Your task to perform on an android device: Open ESPN.com Image 0: 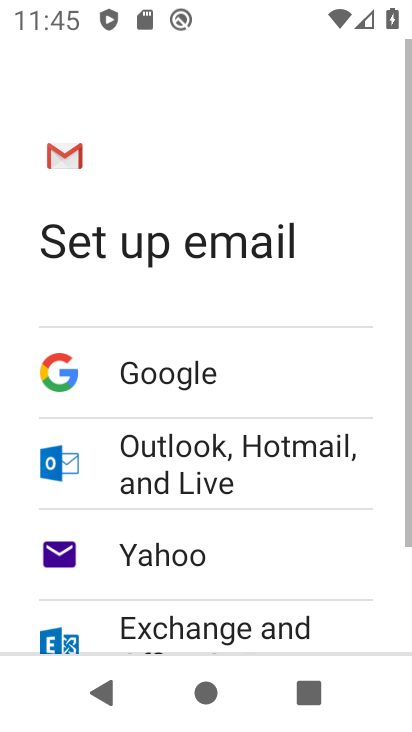
Step 0: press home button
Your task to perform on an android device: Open ESPN.com Image 1: 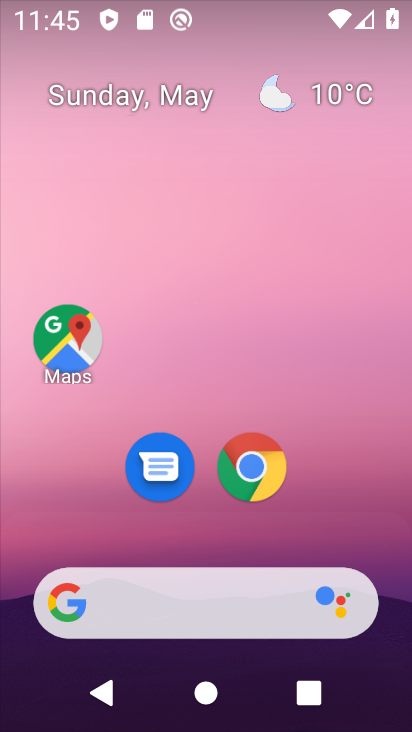
Step 1: drag from (388, 526) to (335, 196)
Your task to perform on an android device: Open ESPN.com Image 2: 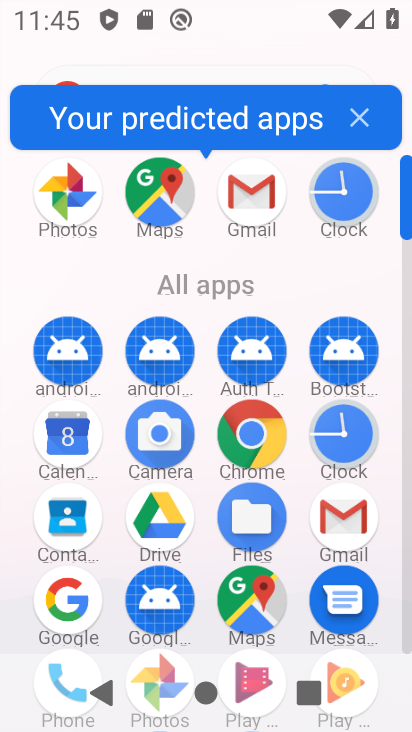
Step 2: click (266, 435)
Your task to perform on an android device: Open ESPN.com Image 3: 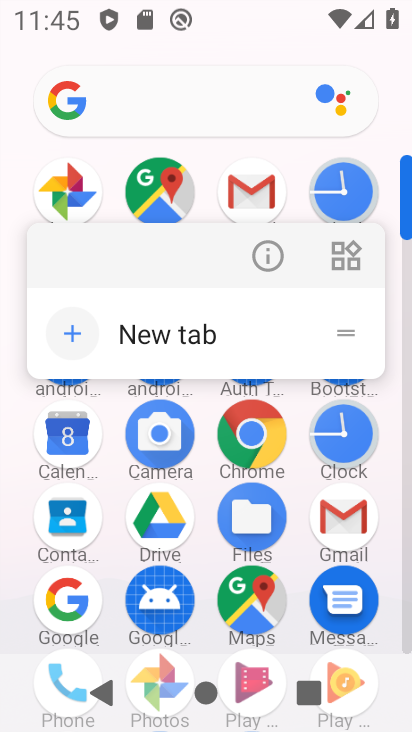
Step 3: click (258, 437)
Your task to perform on an android device: Open ESPN.com Image 4: 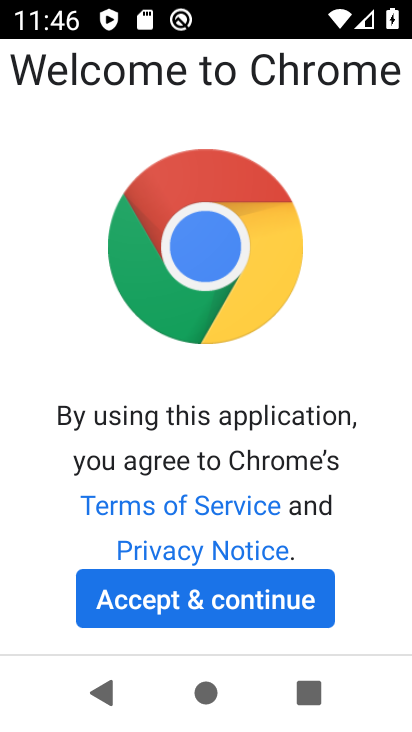
Step 4: click (242, 607)
Your task to perform on an android device: Open ESPN.com Image 5: 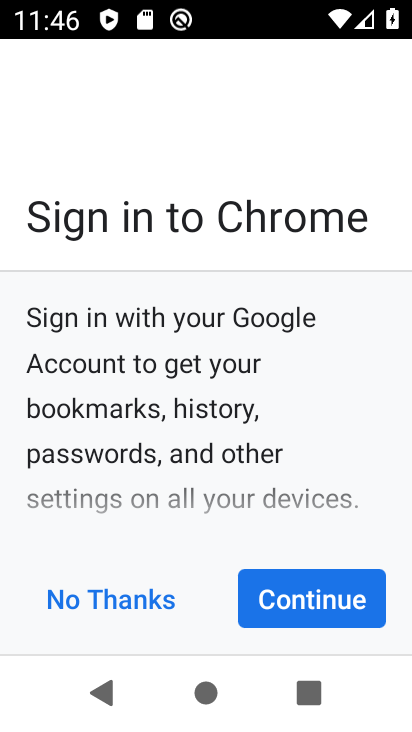
Step 5: click (255, 598)
Your task to perform on an android device: Open ESPN.com Image 6: 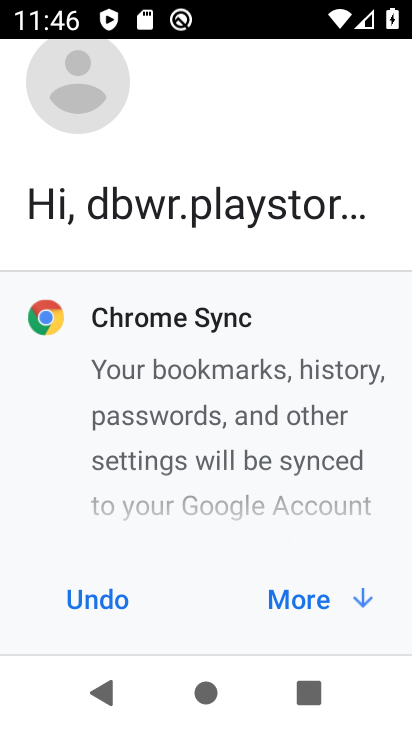
Step 6: click (270, 600)
Your task to perform on an android device: Open ESPN.com Image 7: 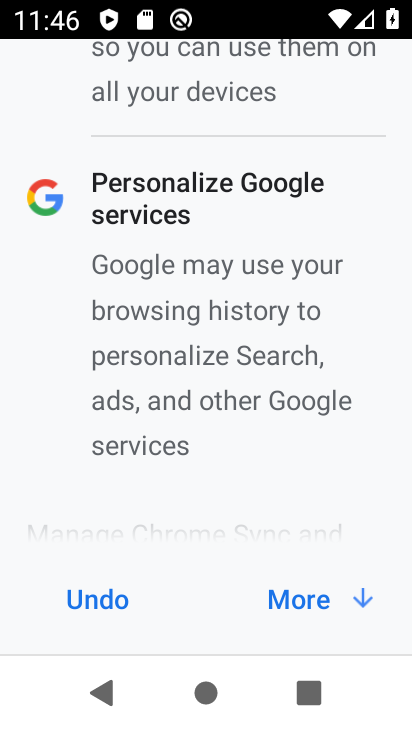
Step 7: click (261, 600)
Your task to perform on an android device: Open ESPN.com Image 8: 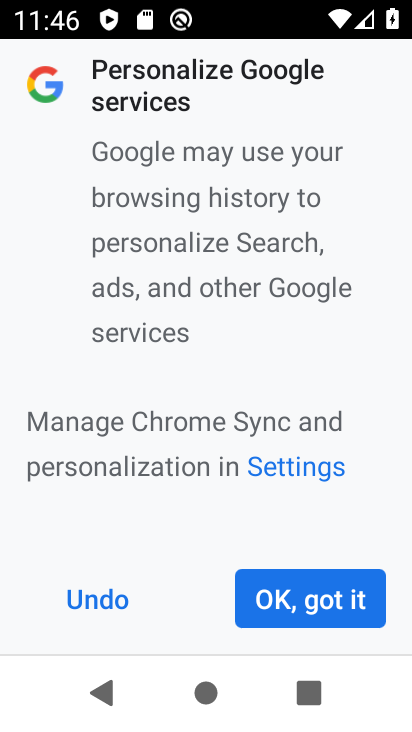
Step 8: click (259, 601)
Your task to perform on an android device: Open ESPN.com Image 9: 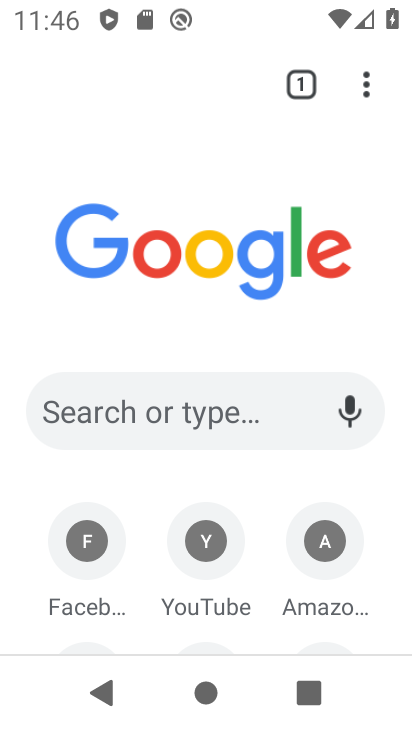
Step 9: click (232, 411)
Your task to perform on an android device: Open ESPN.com Image 10: 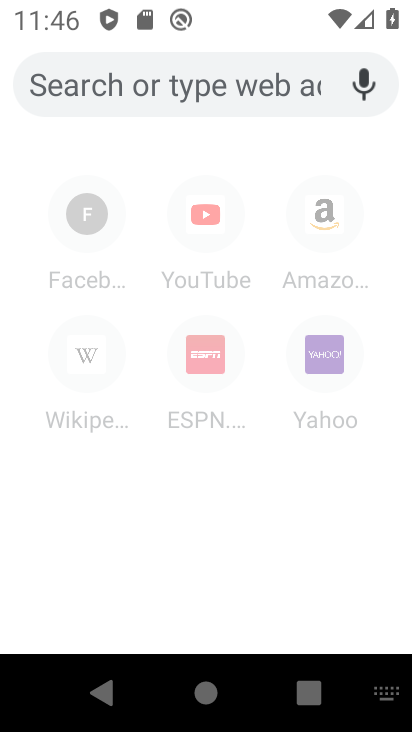
Step 10: type "espn"
Your task to perform on an android device: Open ESPN.com Image 11: 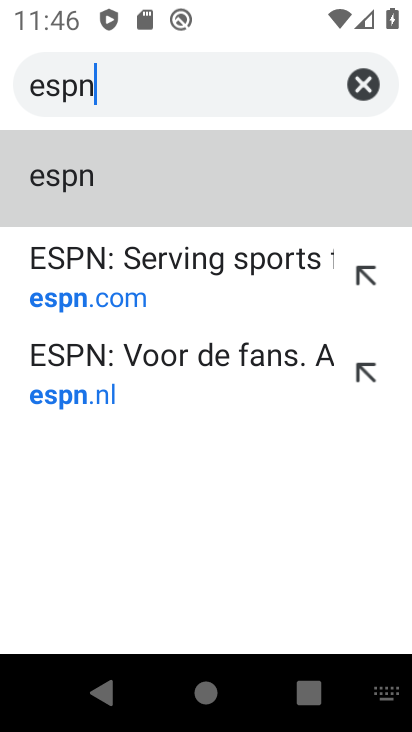
Step 11: click (63, 260)
Your task to perform on an android device: Open ESPN.com Image 12: 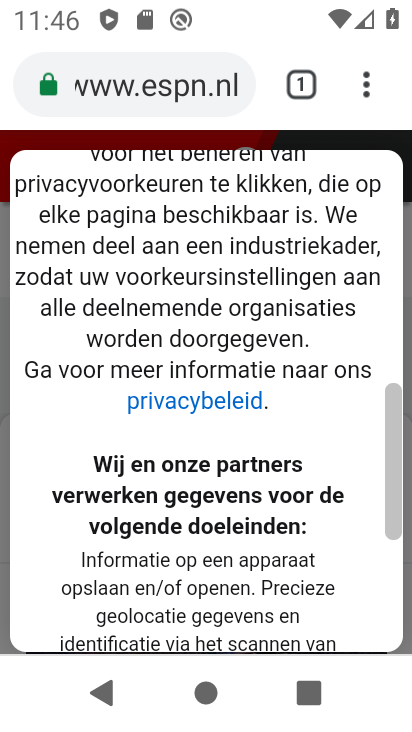
Step 12: task complete